Your task to perform on an android device: turn off airplane mode Image 0: 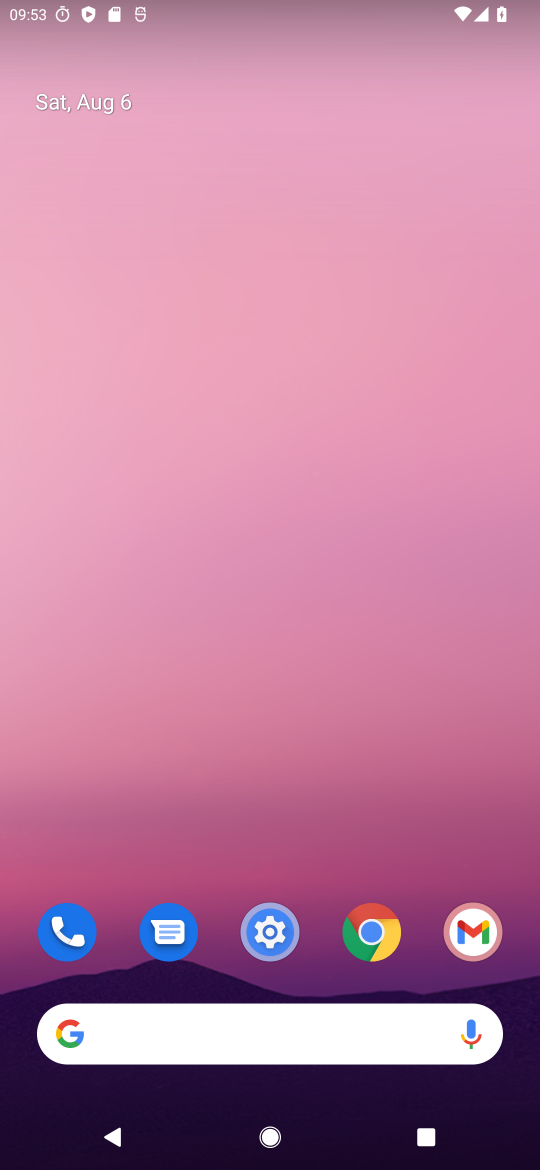
Step 0: drag from (294, 988) to (459, 9)
Your task to perform on an android device: turn off airplane mode Image 1: 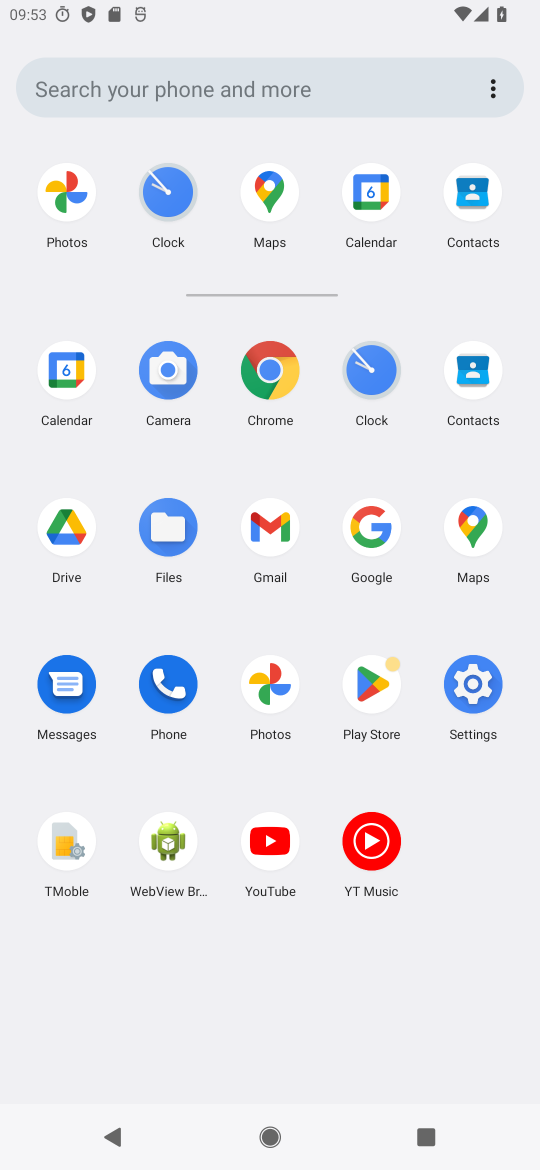
Step 1: click (476, 700)
Your task to perform on an android device: turn off airplane mode Image 2: 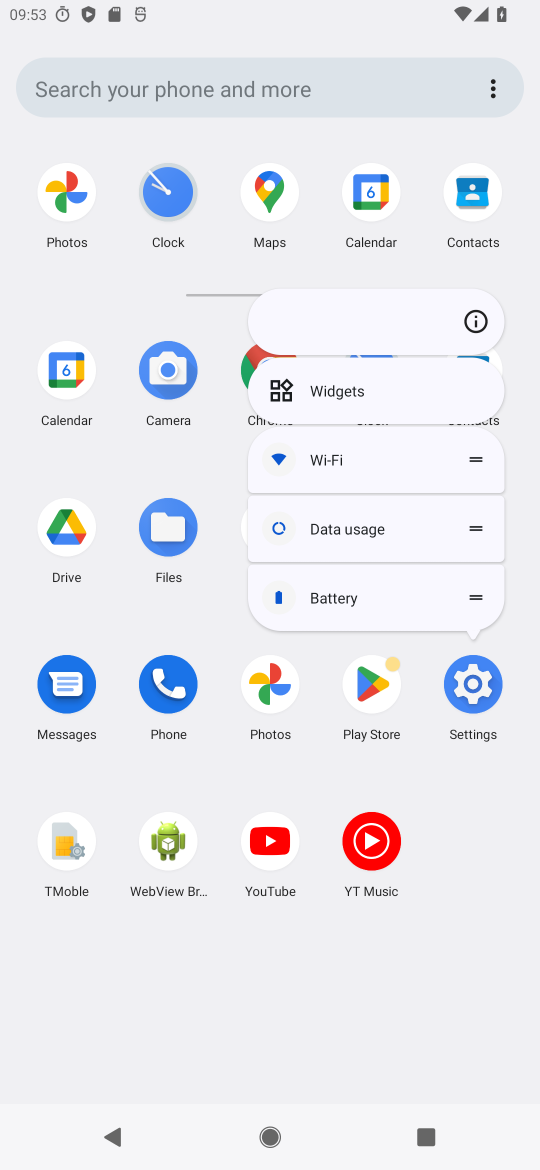
Step 2: click (475, 675)
Your task to perform on an android device: turn off airplane mode Image 3: 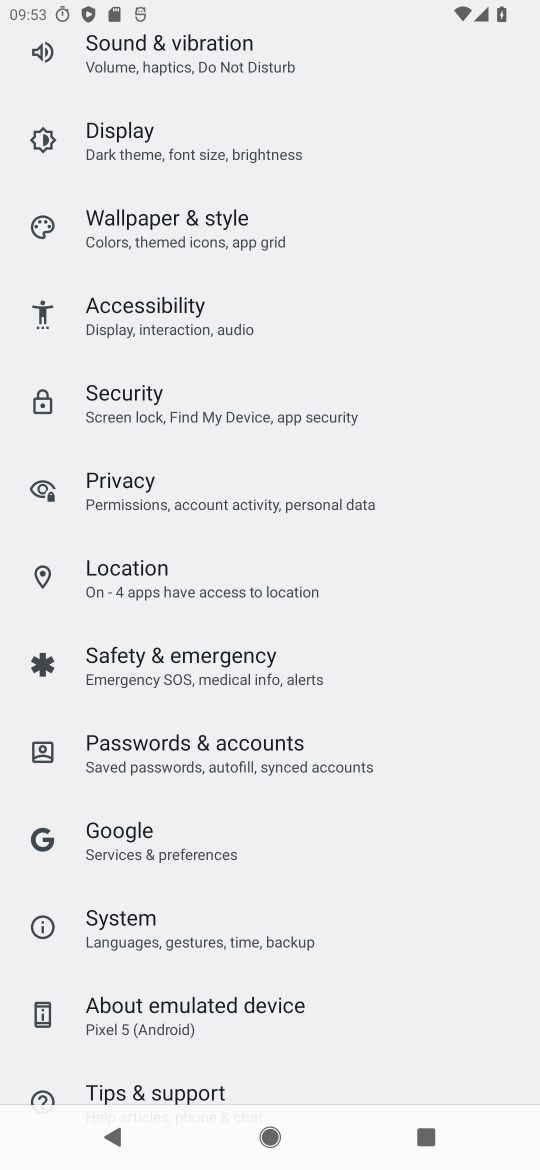
Step 3: drag from (475, 265) to (431, 982)
Your task to perform on an android device: turn off airplane mode Image 4: 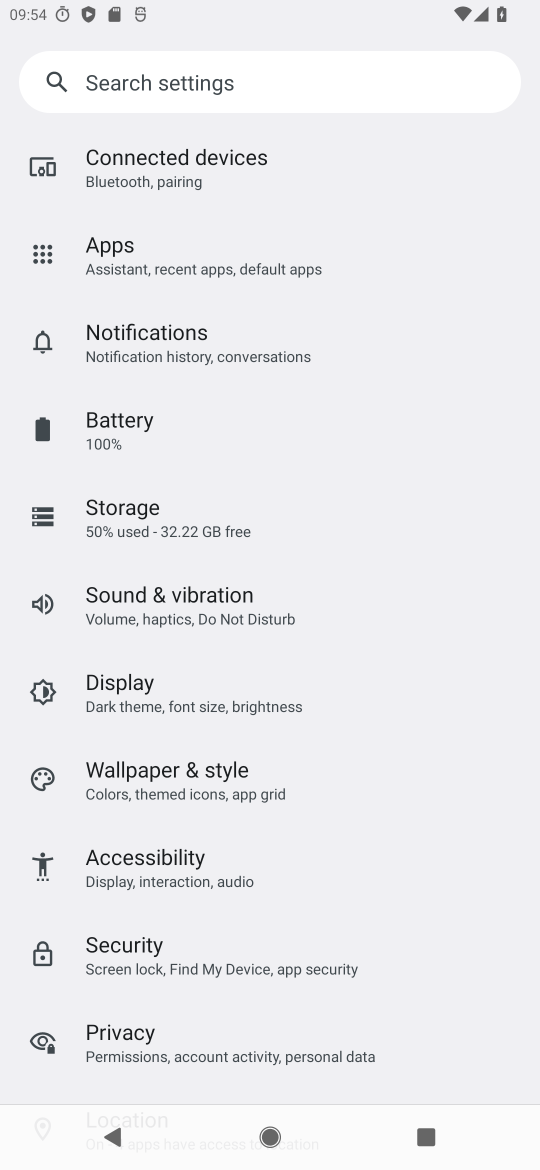
Step 4: drag from (370, 292) to (229, 1001)
Your task to perform on an android device: turn off airplane mode Image 5: 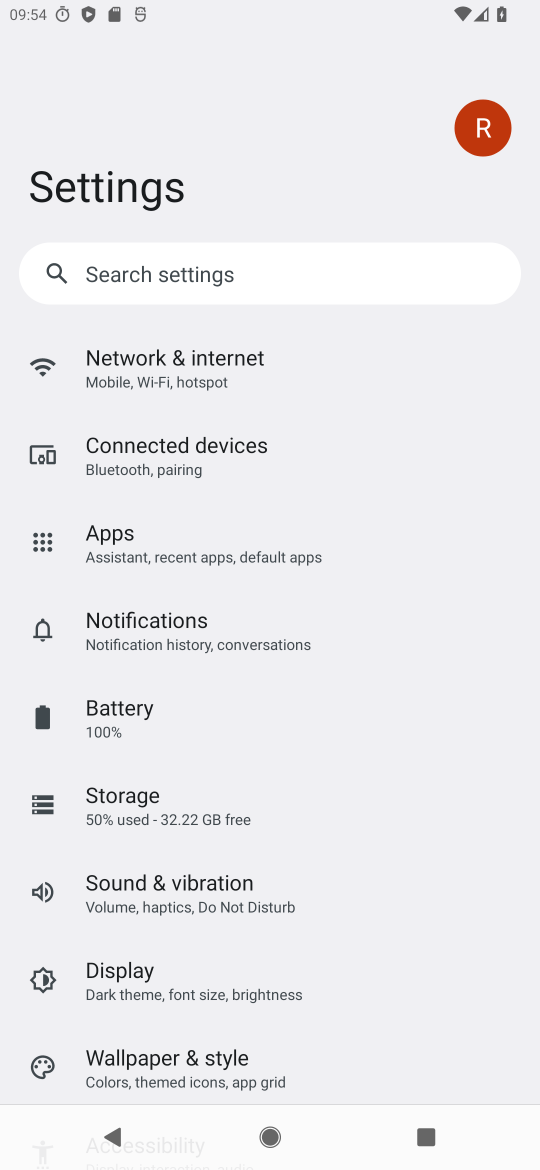
Step 5: click (194, 366)
Your task to perform on an android device: turn off airplane mode Image 6: 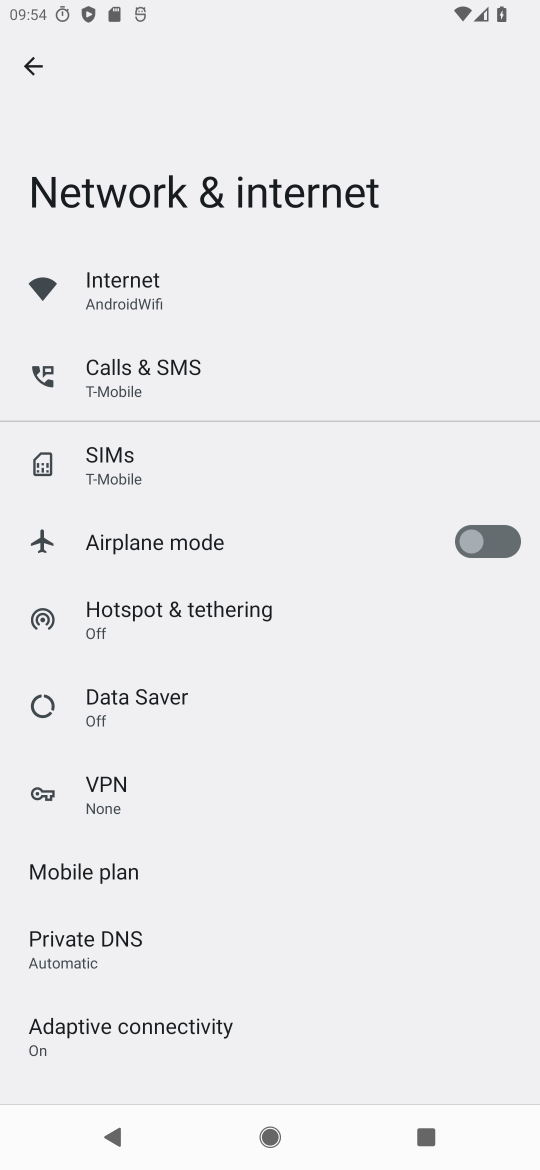
Step 6: task complete